Your task to perform on an android device: Toggle the flashlight Image 0: 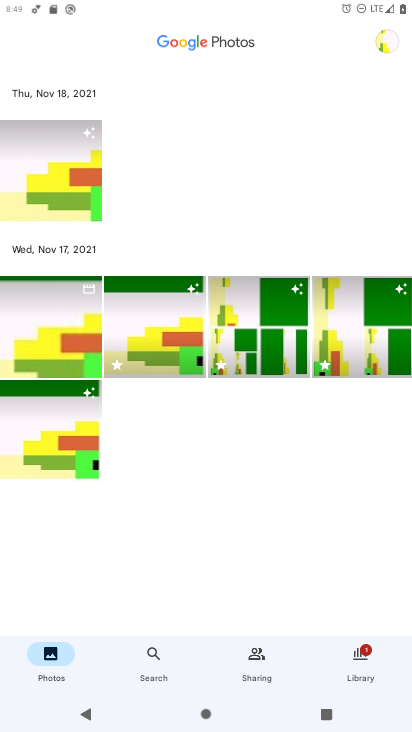
Step 0: press home button
Your task to perform on an android device: Toggle the flashlight Image 1: 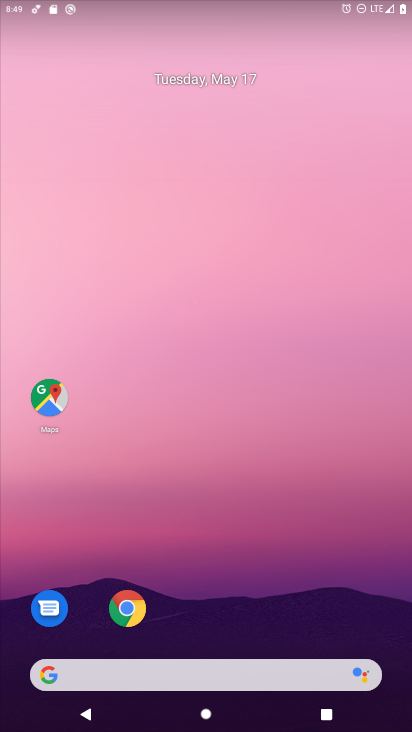
Step 1: drag from (206, 612) to (220, 38)
Your task to perform on an android device: Toggle the flashlight Image 2: 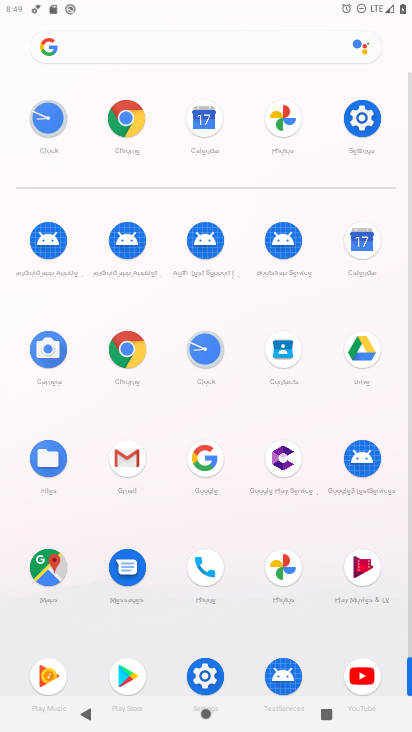
Step 2: click (363, 138)
Your task to perform on an android device: Toggle the flashlight Image 3: 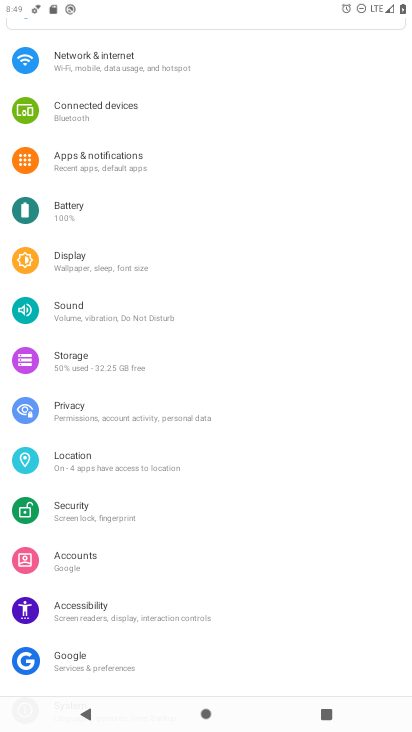
Step 3: drag from (249, 125) to (186, 560)
Your task to perform on an android device: Toggle the flashlight Image 4: 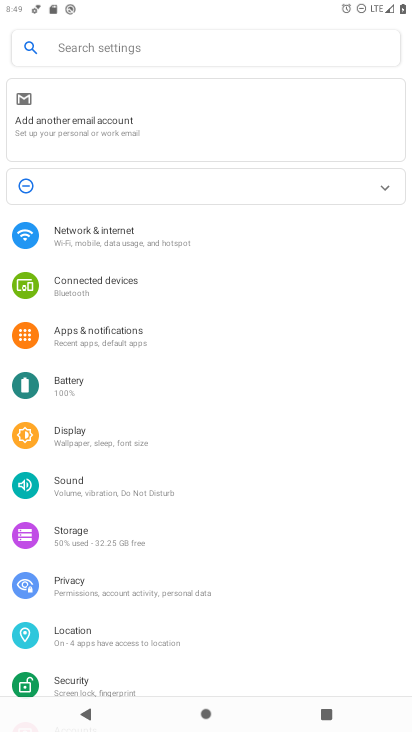
Step 4: click (170, 49)
Your task to perform on an android device: Toggle the flashlight Image 5: 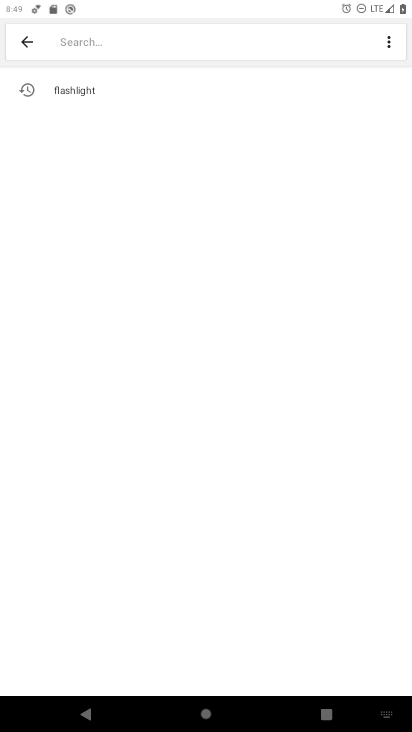
Step 5: type "flashlight"
Your task to perform on an android device: Toggle the flashlight Image 6: 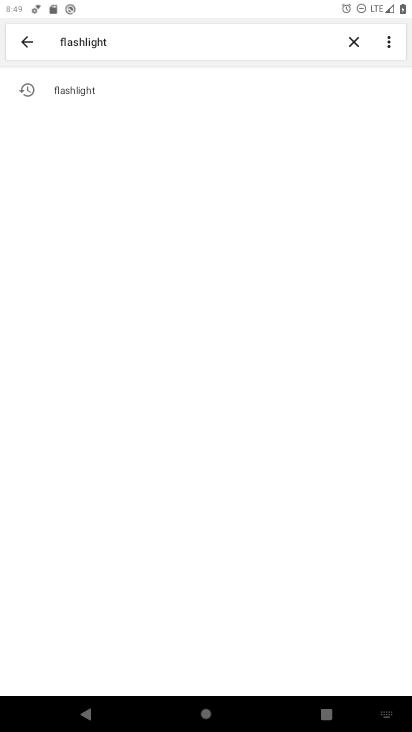
Step 6: click (70, 98)
Your task to perform on an android device: Toggle the flashlight Image 7: 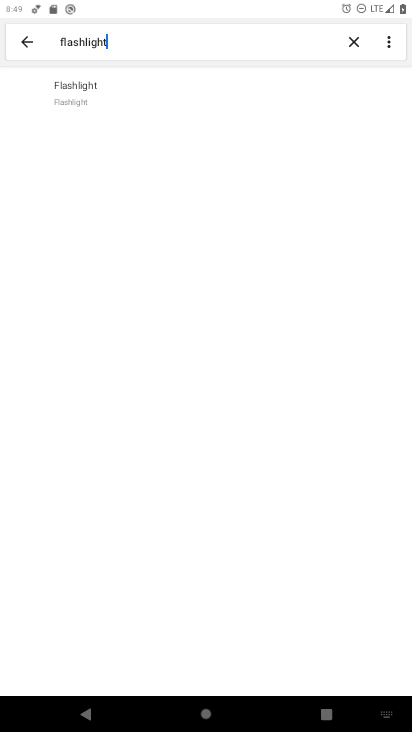
Step 7: task complete